Your task to perform on an android device: allow notifications from all sites in the chrome app Image 0: 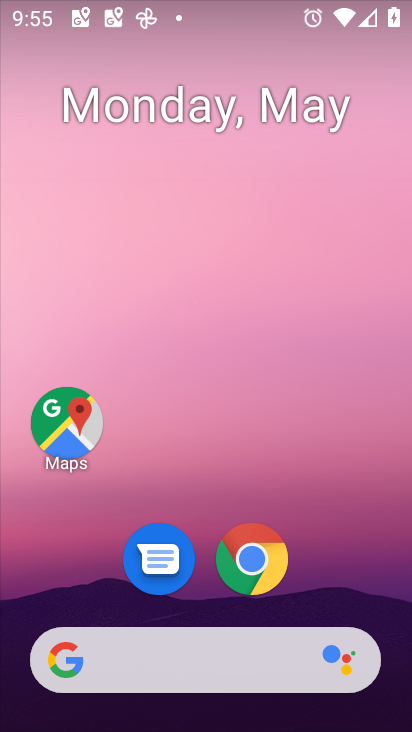
Step 0: drag from (372, 639) to (319, 79)
Your task to perform on an android device: allow notifications from all sites in the chrome app Image 1: 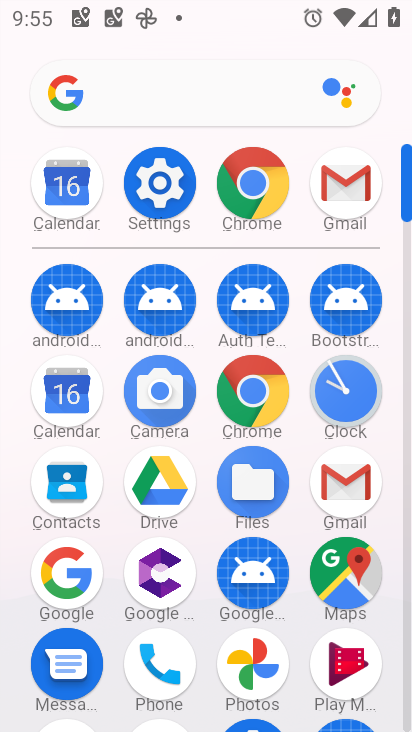
Step 1: click (255, 401)
Your task to perform on an android device: allow notifications from all sites in the chrome app Image 2: 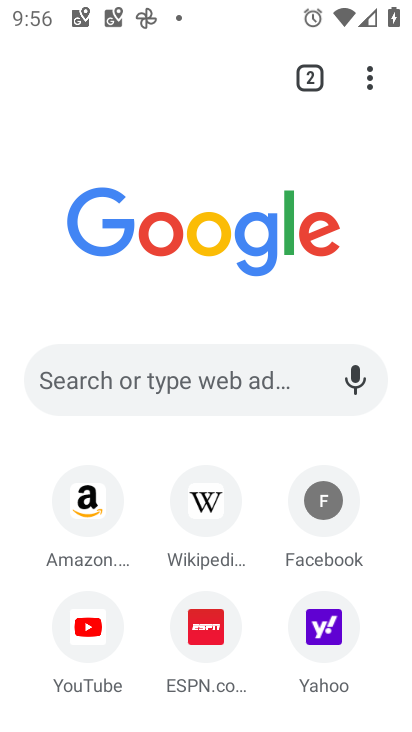
Step 2: click (379, 79)
Your task to perform on an android device: allow notifications from all sites in the chrome app Image 3: 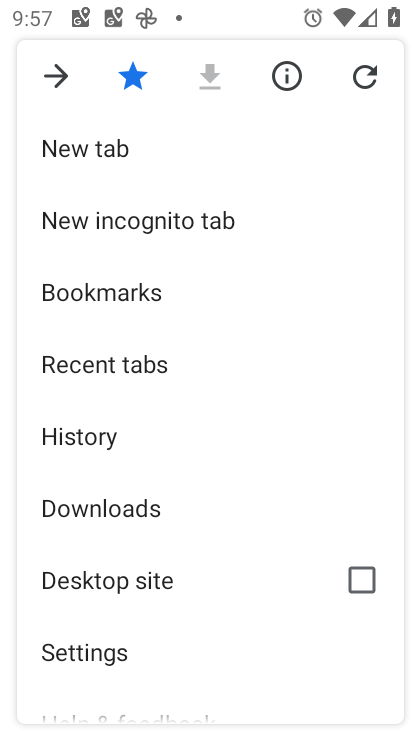
Step 3: click (120, 645)
Your task to perform on an android device: allow notifications from all sites in the chrome app Image 4: 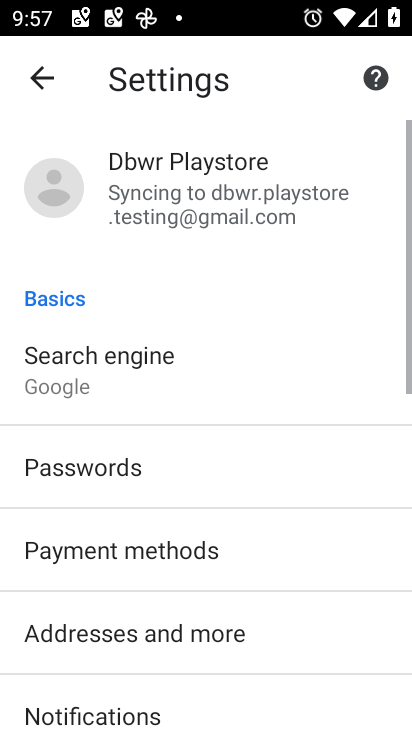
Step 4: drag from (119, 645) to (144, 295)
Your task to perform on an android device: allow notifications from all sites in the chrome app Image 5: 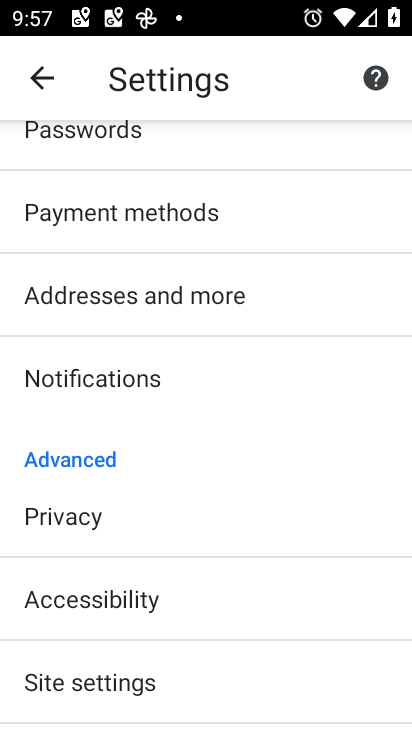
Step 5: click (140, 392)
Your task to perform on an android device: allow notifications from all sites in the chrome app Image 6: 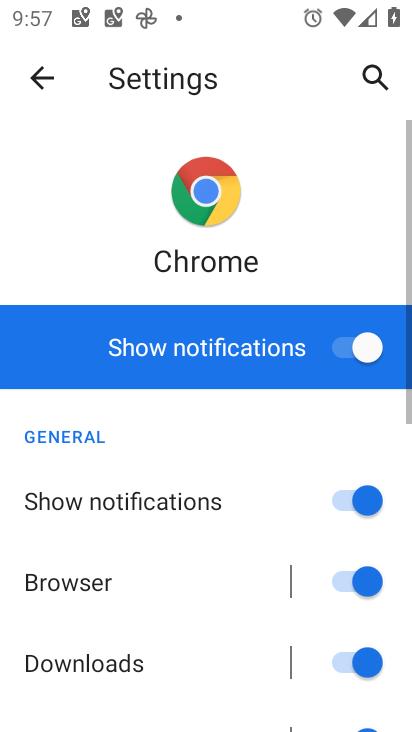
Step 6: task complete